Your task to perform on an android device: allow cookies in the chrome app Image 0: 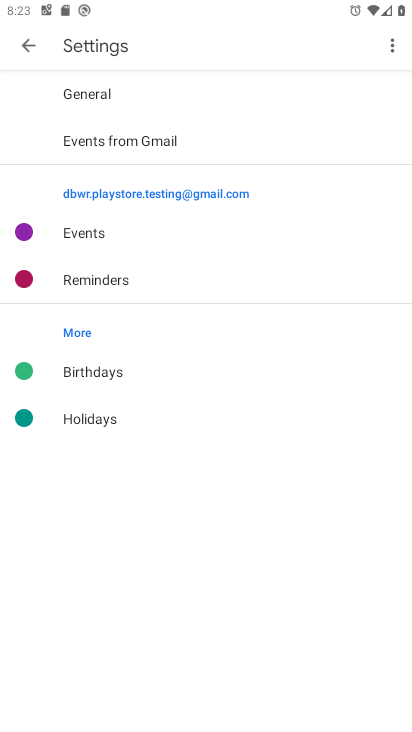
Step 0: press home button
Your task to perform on an android device: allow cookies in the chrome app Image 1: 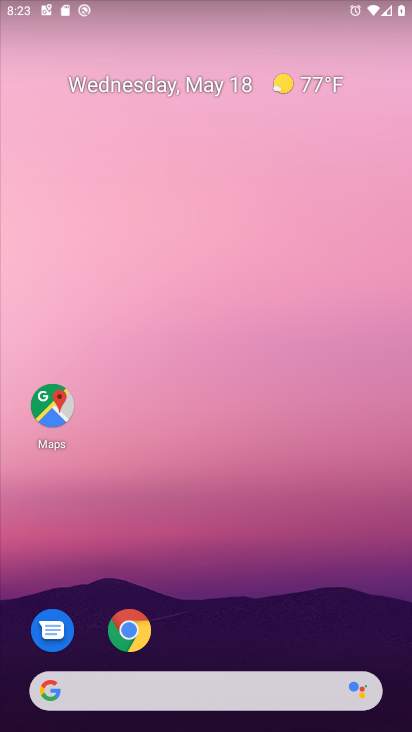
Step 1: click (129, 641)
Your task to perform on an android device: allow cookies in the chrome app Image 2: 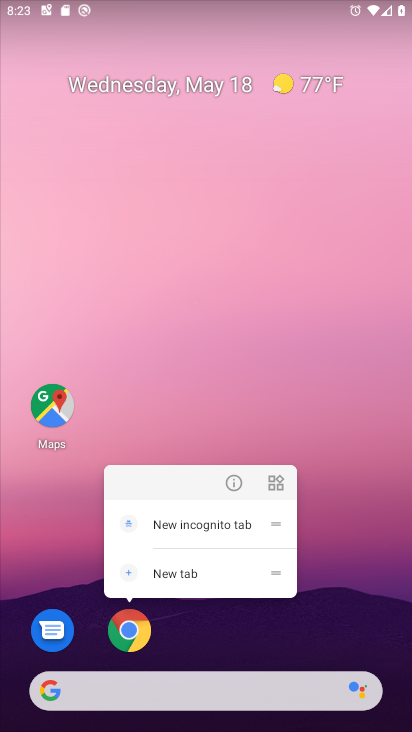
Step 2: click (129, 642)
Your task to perform on an android device: allow cookies in the chrome app Image 3: 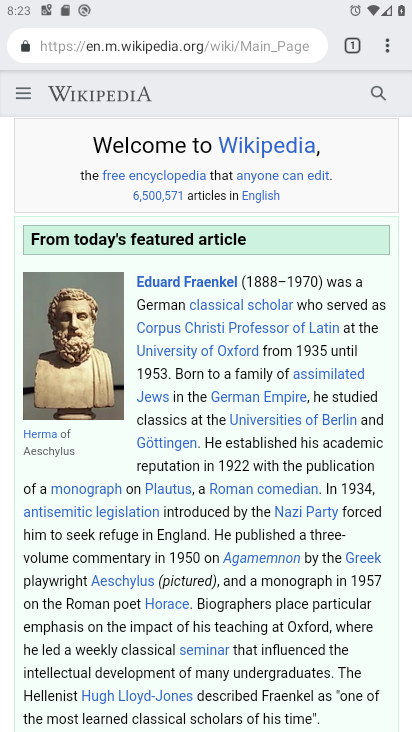
Step 3: drag from (383, 53) to (244, 548)
Your task to perform on an android device: allow cookies in the chrome app Image 4: 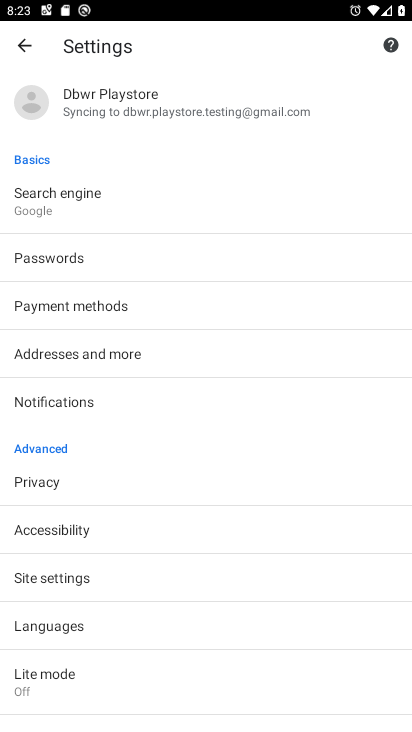
Step 4: click (92, 582)
Your task to perform on an android device: allow cookies in the chrome app Image 5: 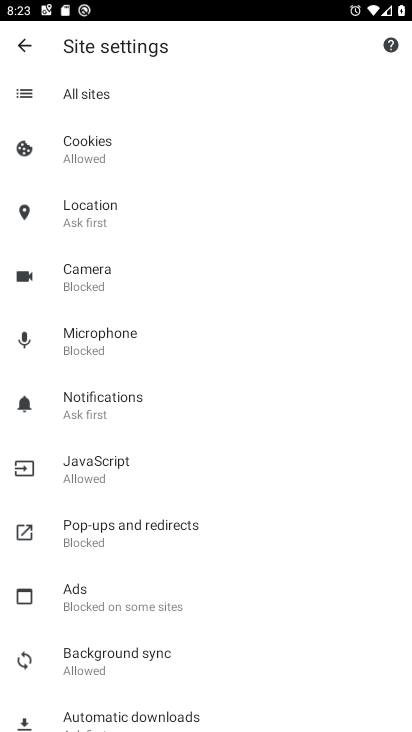
Step 5: click (117, 143)
Your task to perform on an android device: allow cookies in the chrome app Image 6: 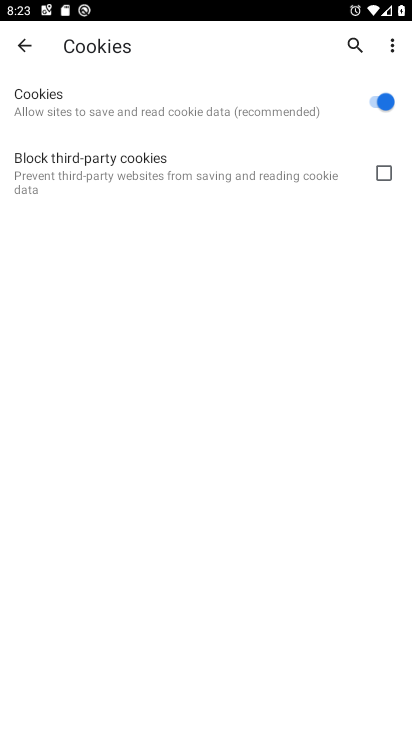
Step 6: task complete